Your task to perform on an android device: What's on my calendar today? Image 0: 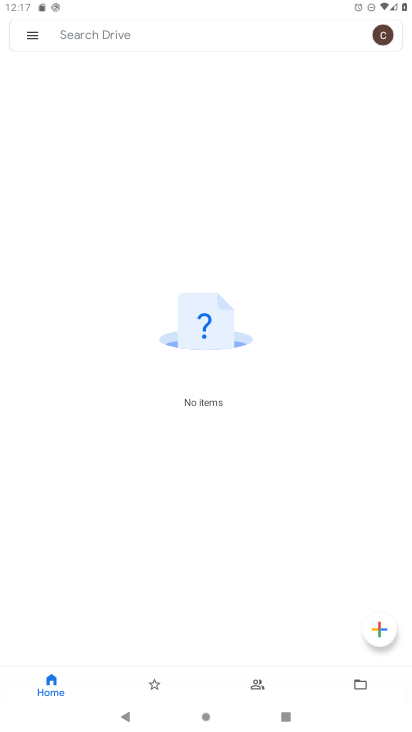
Step 0: press home button
Your task to perform on an android device: What's on my calendar today? Image 1: 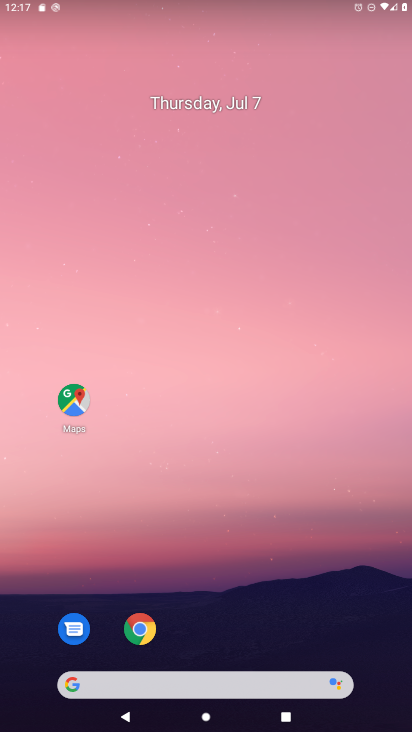
Step 1: drag from (223, 608) to (224, 139)
Your task to perform on an android device: What's on my calendar today? Image 2: 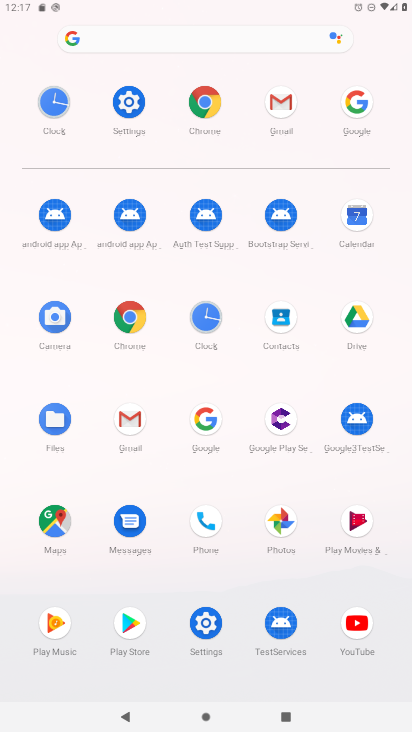
Step 2: click (351, 219)
Your task to perform on an android device: What's on my calendar today? Image 3: 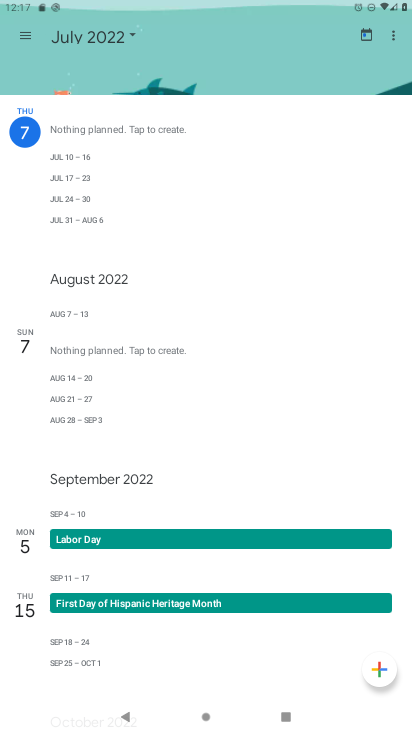
Step 3: click (124, 41)
Your task to perform on an android device: What's on my calendar today? Image 4: 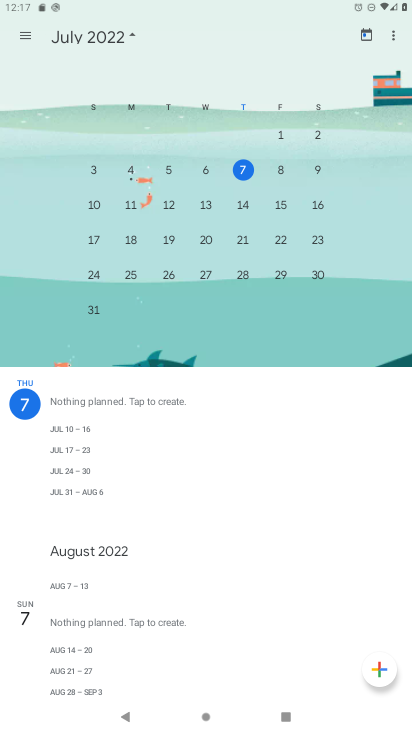
Step 4: click (238, 175)
Your task to perform on an android device: What's on my calendar today? Image 5: 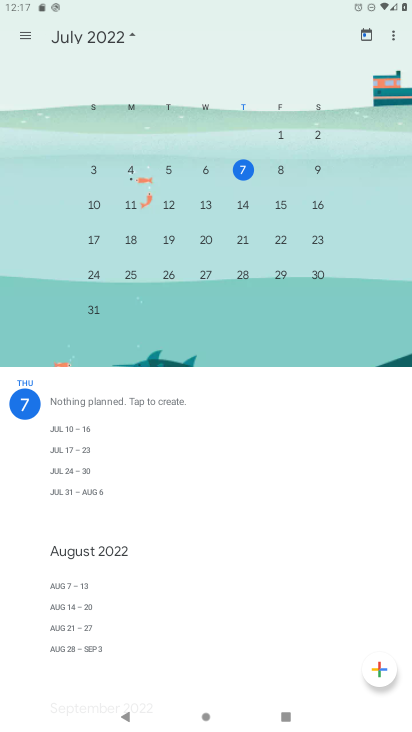
Step 5: task complete